Your task to perform on an android device: all mails in gmail Image 0: 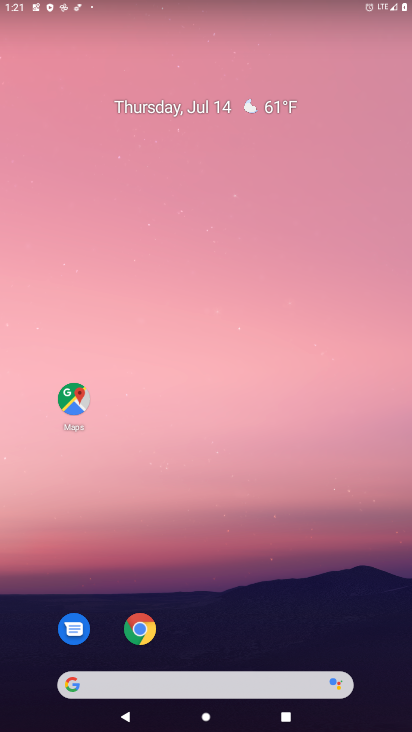
Step 0: drag from (214, 550) to (186, 62)
Your task to perform on an android device: all mails in gmail Image 1: 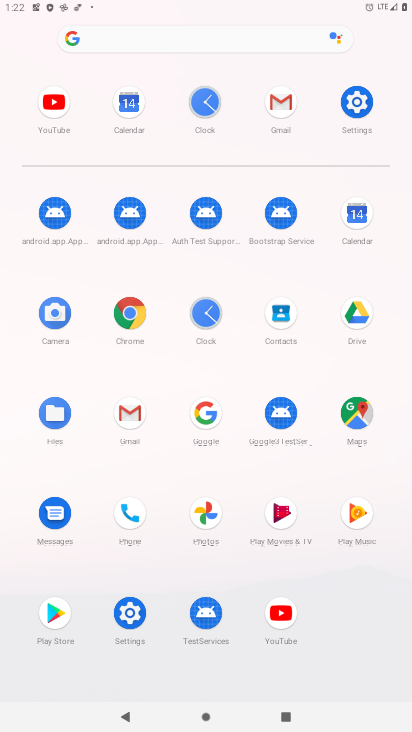
Step 1: click (276, 103)
Your task to perform on an android device: all mails in gmail Image 2: 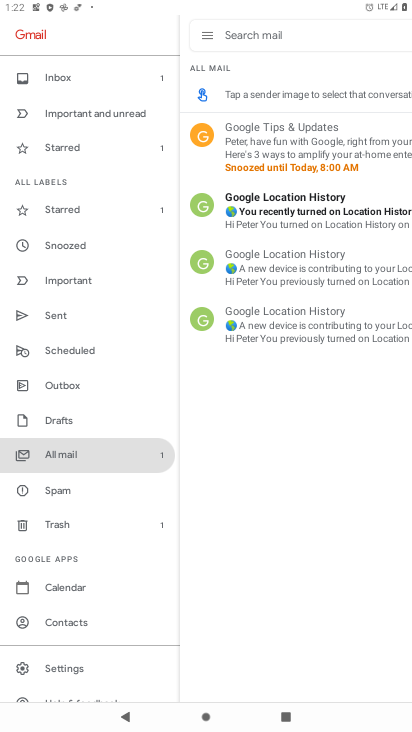
Step 2: task complete